Your task to perform on an android device: Open Google Image 0: 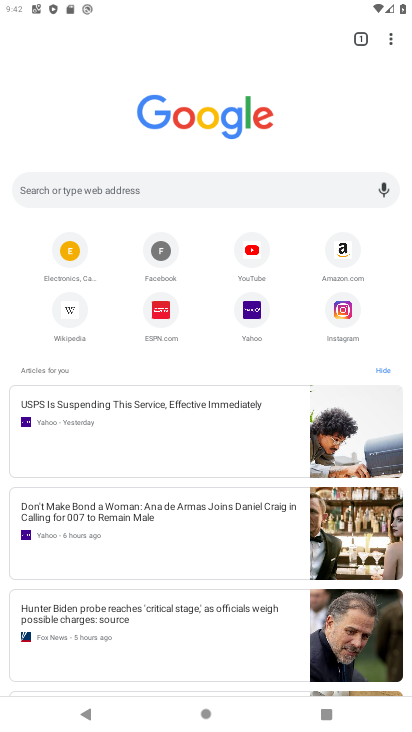
Step 0: task complete